Your task to perform on an android device: open chrome and create a bookmark for the current page Image 0: 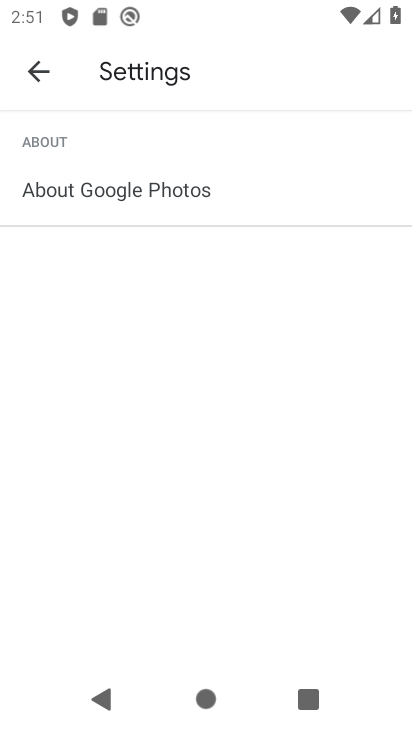
Step 0: press home button
Your task to perform on an android device: open chrome and create a bookmark for the current page Image 1: 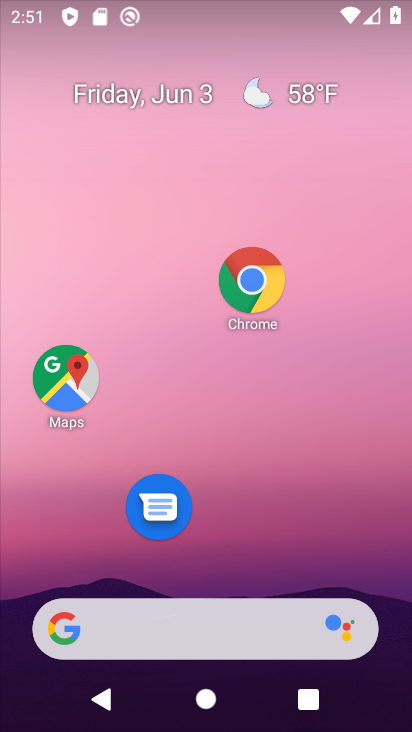
Step 1: click (249, 275)
Your task to perform on an android device: open chrome and create a bookmark for the current page Image 2: 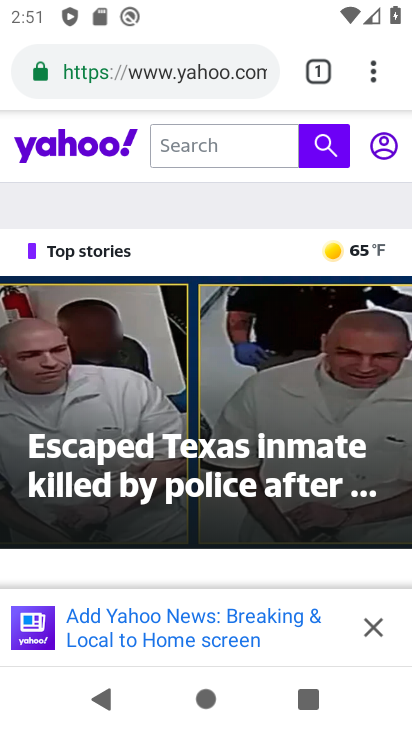
Step 2: click (368, 71)
Your task to perform on an android device: open chrome and create a bookmark for the current page Image 3: 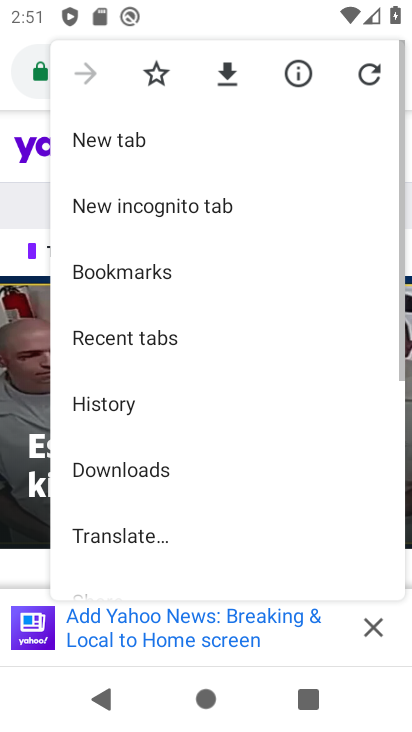
Step 3: click (143, 68)
Your task to perform on an android device: open chrome and create a bookmark for the current page Image 4: 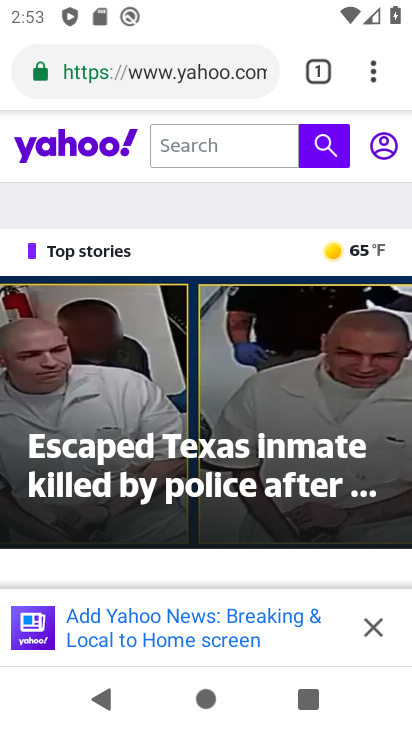
Step 4: task complete